Your task to perform on an android device: Open sound settings Image 0: 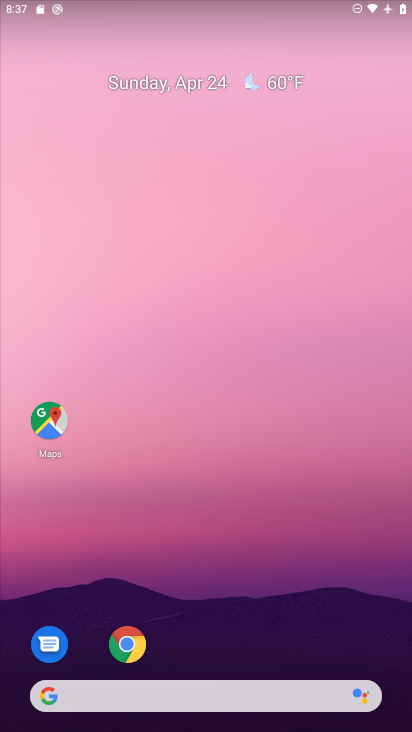
Step 0: drag from (208, 653) to (197, 47)
Your task to perform on an android device: Open sound settings Image 1: 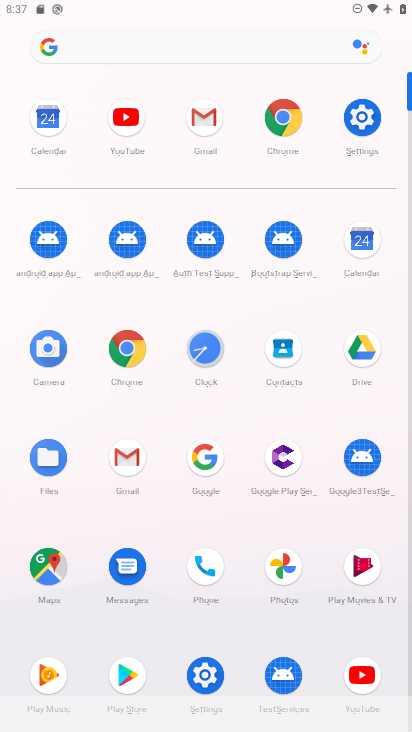
Step 1: click (357, 123)
Your task to perform on an android device: Open sound settings Image 2: 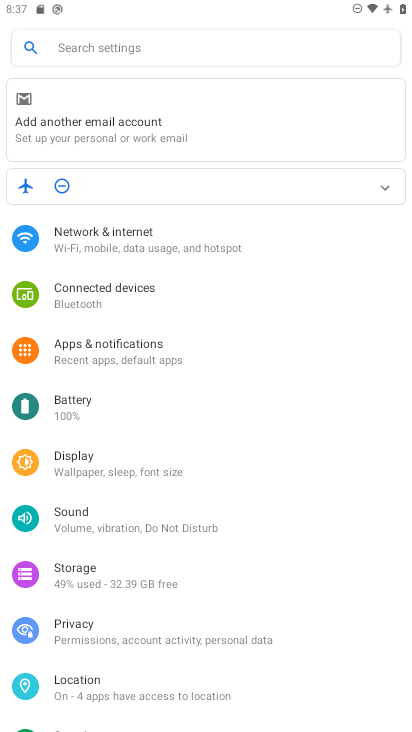
Step 2: click (108, 509)
Your task to perform on an android device: Open sound settings Image 3: 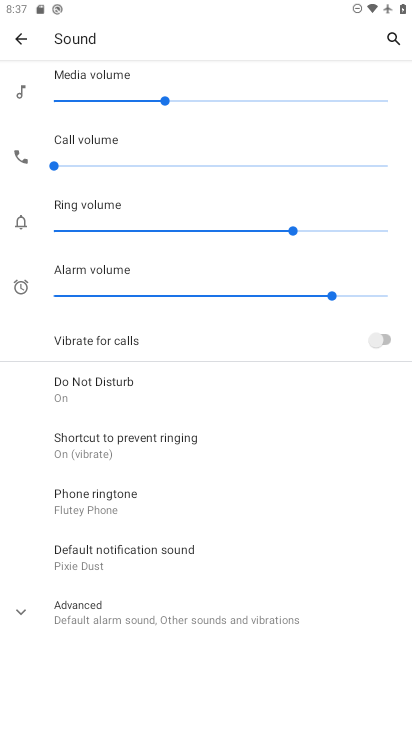
Step 3: drag from (223, 625) to (217, 87)
Your task to perform on an android device: Open sound settings Image 4: 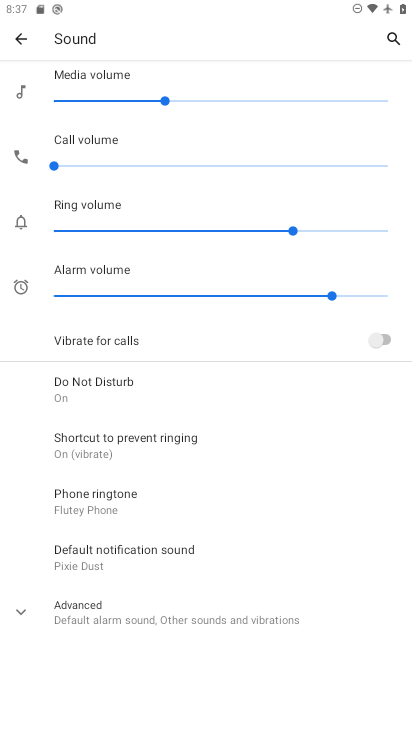
Step 4: click (21, 605)
Your task to perform on an android device: Open sound settings Image 5: 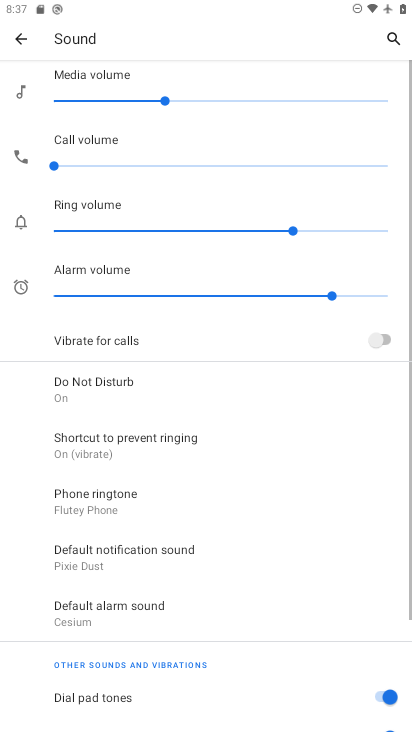
Step 5: task complete